Your task to perform on an android device: What's the weather? Image 0: 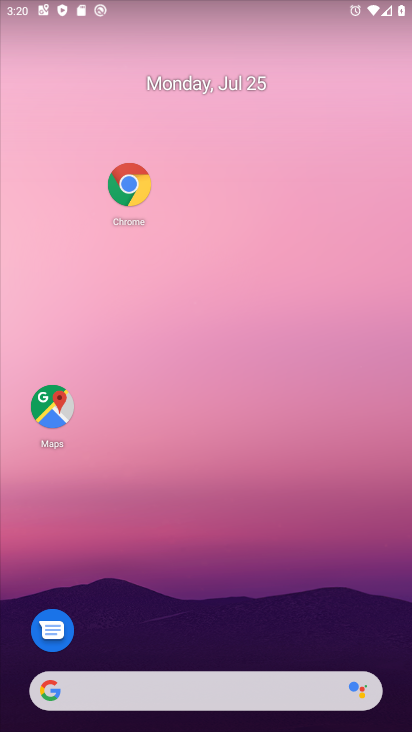
Step 0: drag from (293, 615) to (176, 35)
Your task to perform on an android device: What's the weather? Image 1: 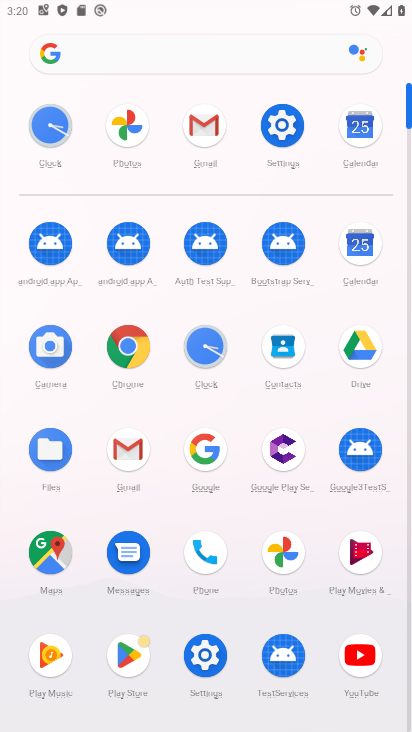
Step 1: click (217, 62)
Your task to perform on an android device: What's the weather? Image 2: 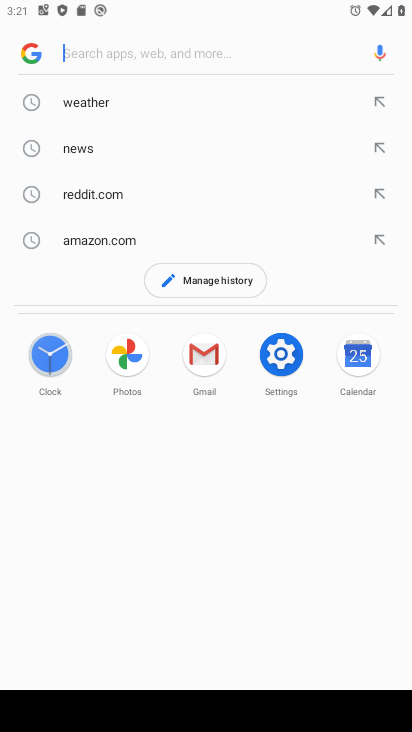
Step 2: click (183, 119)
Your task to perform on an android device: What's the weather? Image 3: 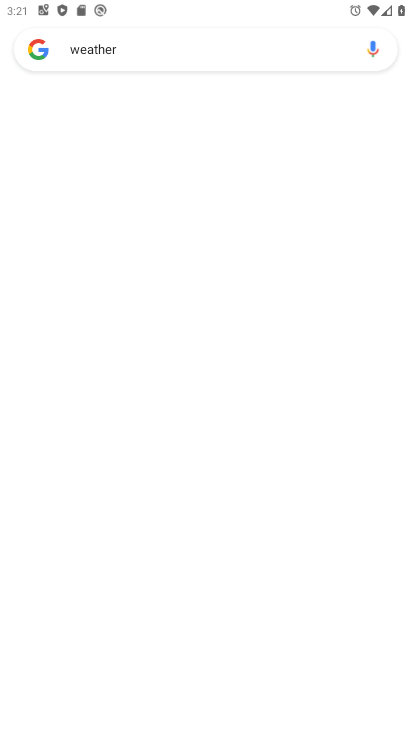
Step 3: task complete